Your task to perform on an android device: Go to calendar. Show me events next week Image 0: 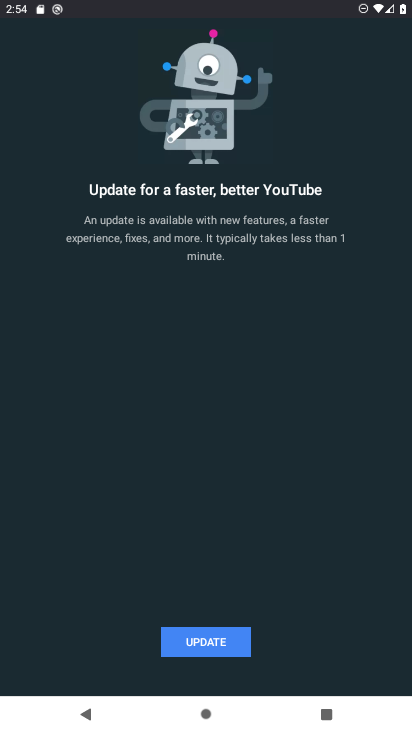
Step 0: press home button
Your task to perform on an android device: Go to calendar. Show me events next week Image 1: 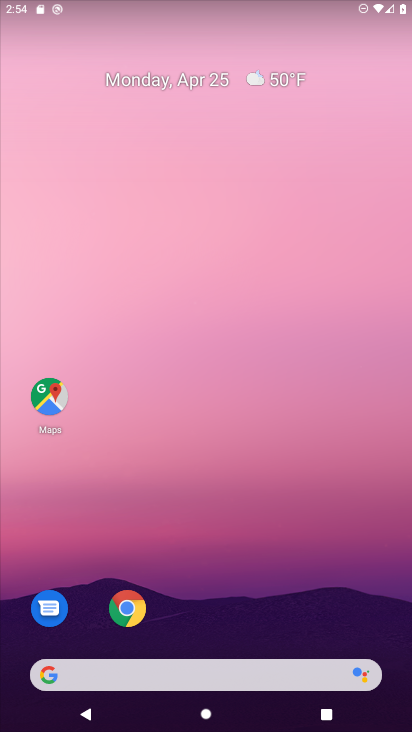
Step 1: drag from (213, 620) to (237, 218)
Your task to perform on an android device: Go to calendar. Show me events next week Image 2: 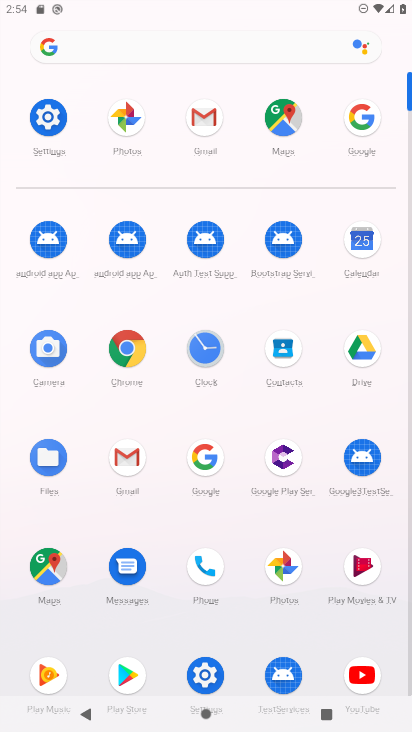
Step 2: click (355, 253)
Your task to perform on an android device: Go to calendar. Show me events next week Image 3: 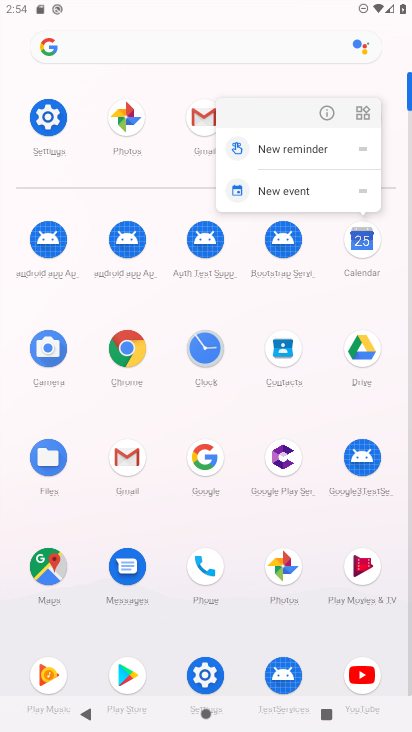
Step 3: click (367, 245)
Your task to perform on an android device: Go to calendar. Show me events next week Image 4: 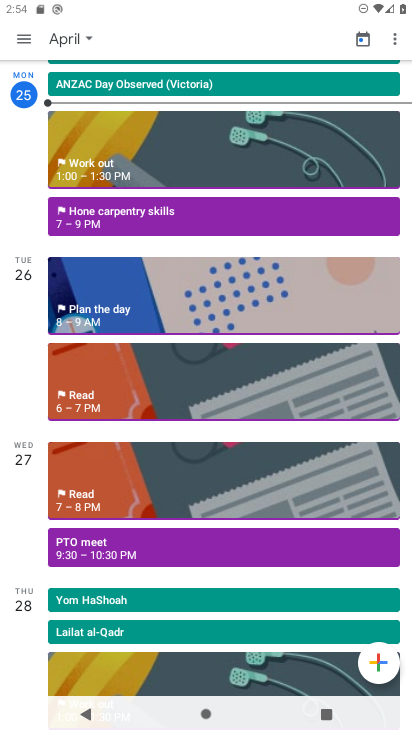
Step 4: click (75, 46)
Your task to perform on an android device: Go to calendar. Show me events next week Image 5: 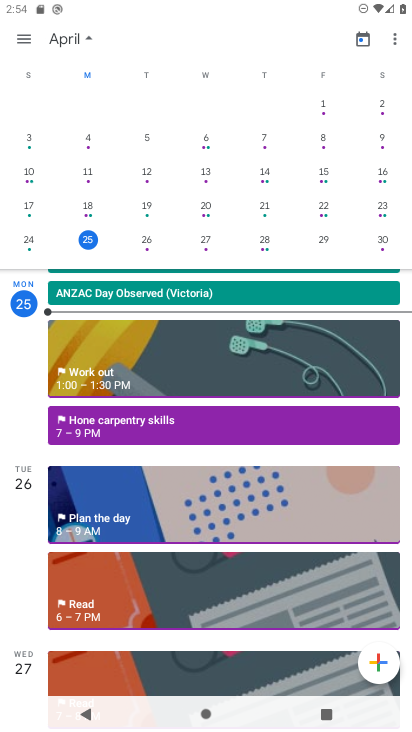
Step 5: click (384, 242)
Your task to perform on an android device: Go to calendar. Show me events next week Image 6: 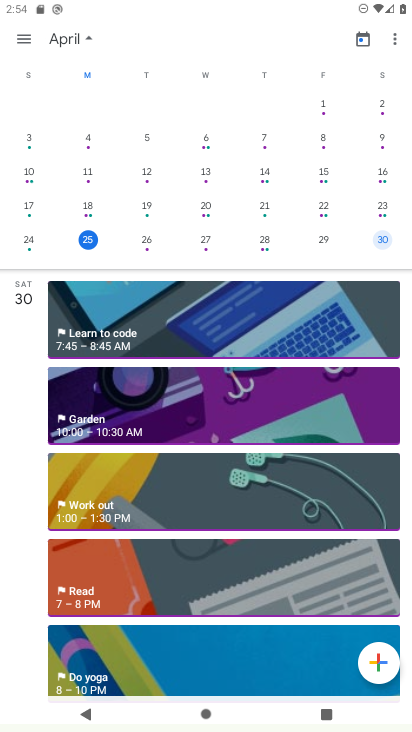
Step 6: drag from (346, 161) to (1, 171)
Your task to perform on an android device: Go to calendar. Show me events next week Image 7: 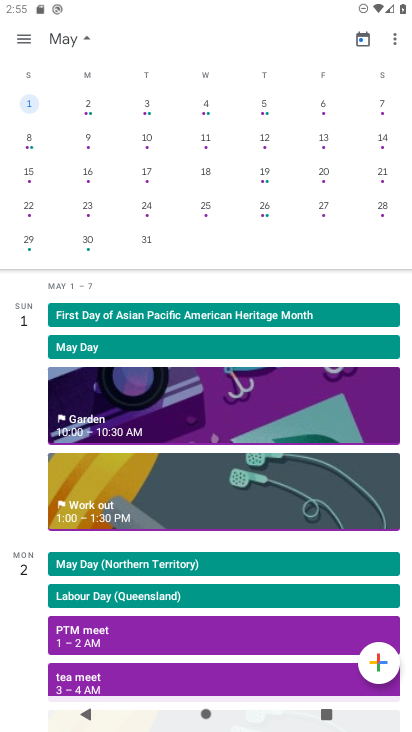
Step 7: click (84, 101)
Your task to perform on an android device: Go to calendar. Show me events next week Image 8: 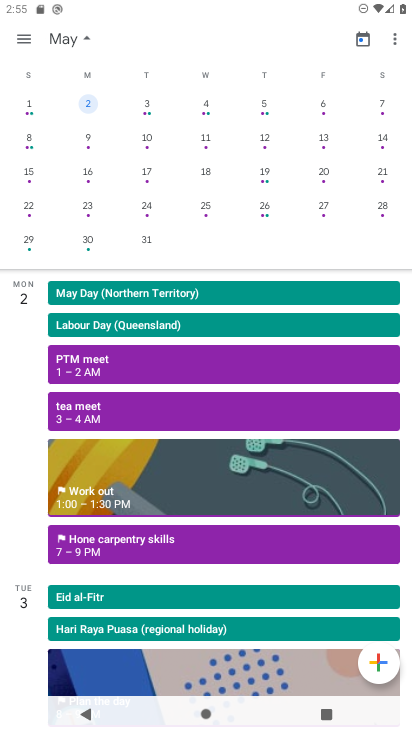
Step 8: click (157, 106)
Your task to perform on an android device: Go to calendar. Show me events next week Image 9: 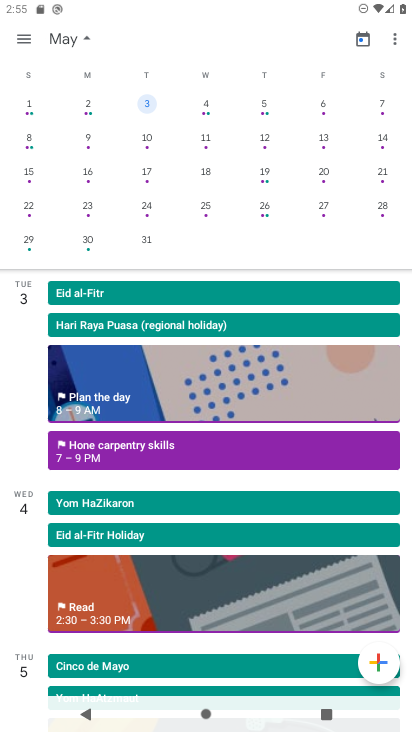
Step 9: click (211, 108)
Your task to perform on an android device: Go to calendar. Show me events next week Image 10: 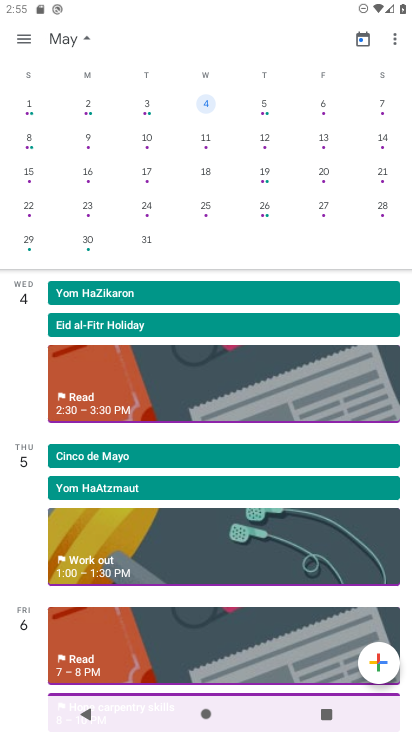
Step 10: task complete